Your task to perform on an android device: What's the weather going to be this weekend? Image 0: 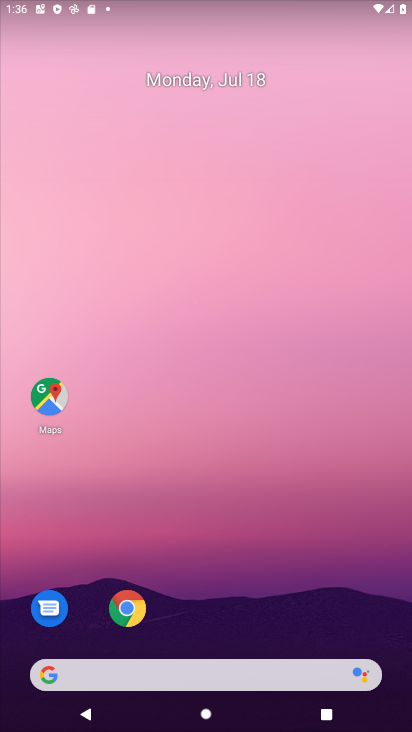
Step 0: drag from (377, 626) to (4, 106)
Your task to perform on an android device: What's the weather going to be this weekend? Image 1: 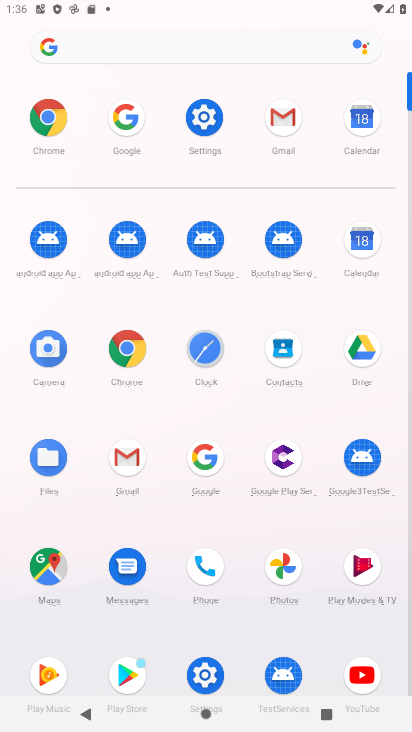
Step 1: click (211, 466)
Your task to perform on an android device: What's the weather going to be this weekend? Image 2: 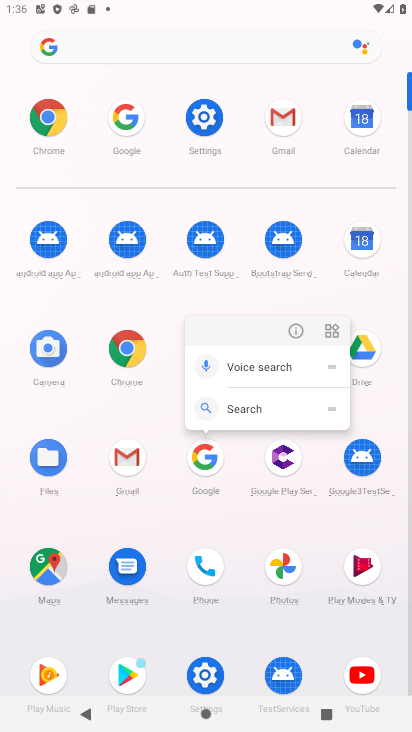
Step 2: click (202, 462)
Your task to perform on an android device: What's the weather going to be this weekend? Image 3: 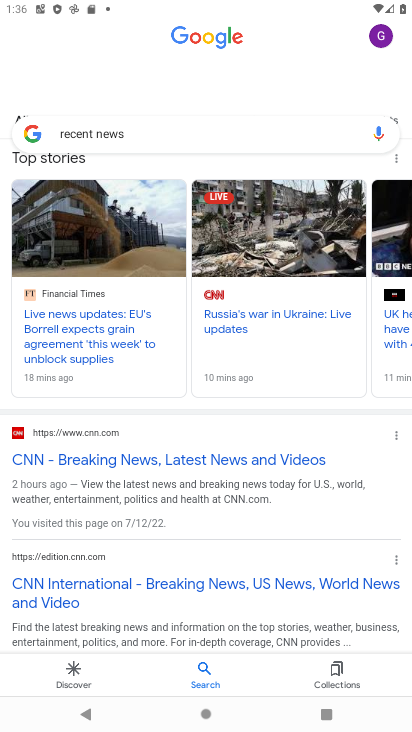
Step 3: press back button
Your task to perform on an android device: What's the weather going to be this weekend? Image 4: 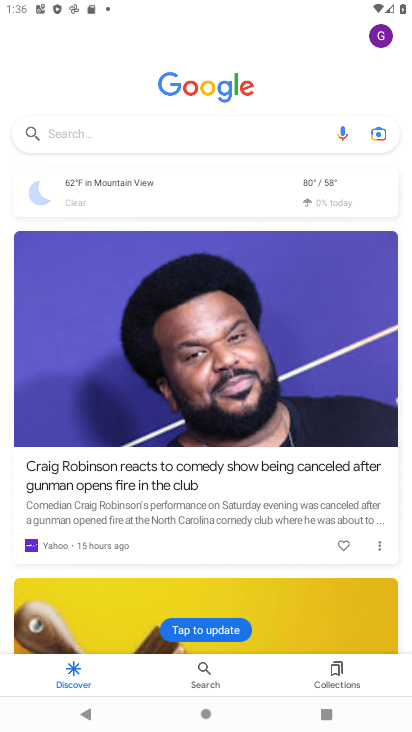
Step 4: click (89, 132)
Your task to perform on an android device: What's the weather going to be this weekend? Image 5: 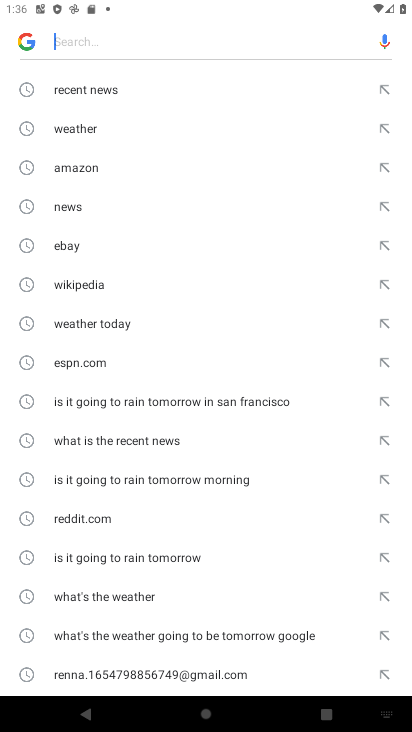
Step 5: click (192, 639)
Your task to perform on an android device: What's the weather going to be this weekend? Image 6: 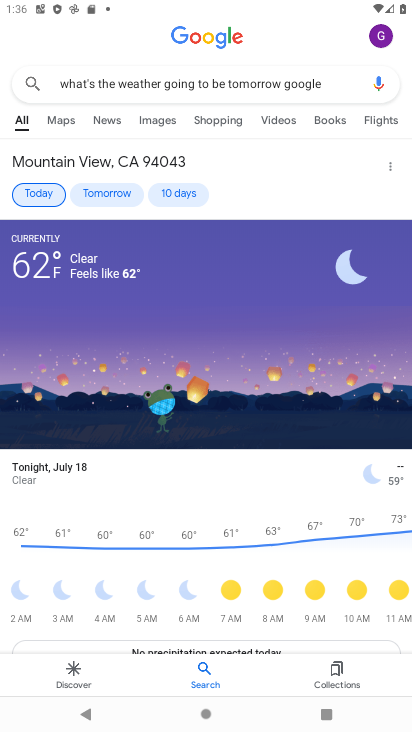
Step 6: task complete